Your task to perform on an android device: turn on improve location accuracy Image 0: 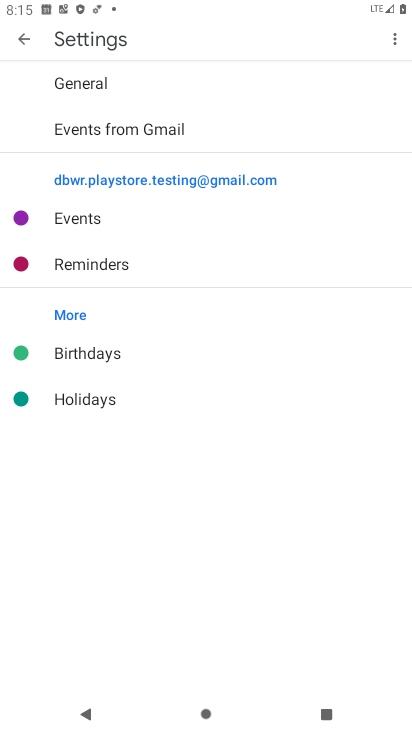
Step 0: press home button
Your task to perform on an android device: turn on improve location accuracy Image 1: 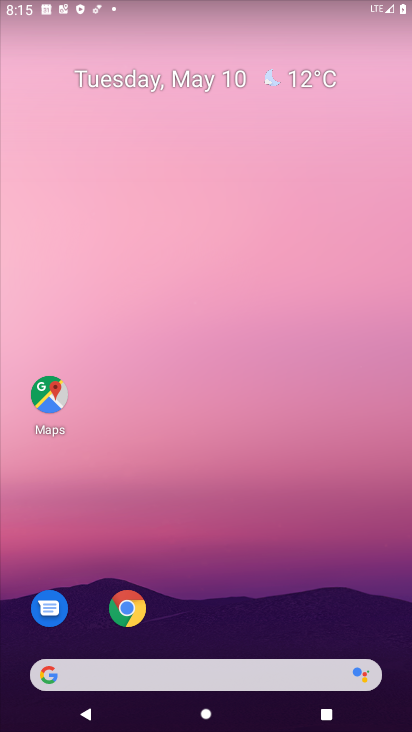
Step 1: drag from (127, 672) to (270, 196)
Your task to perform on an android device: turn on improve location accuracy Image 2: 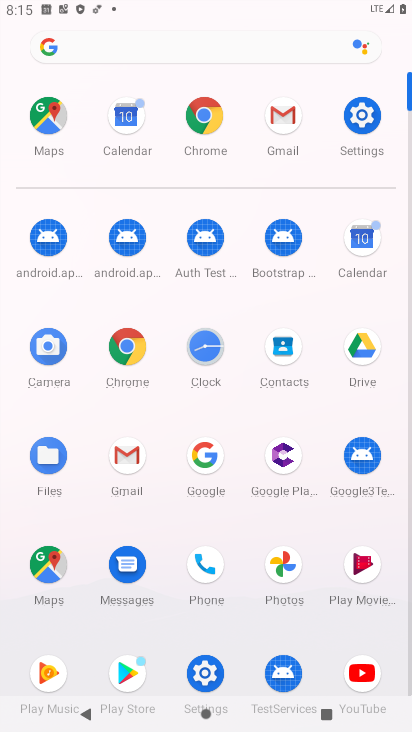
Step 2: click (357, 123)
Your task to perform on an android device: turn on improve location accuracy Image 3: 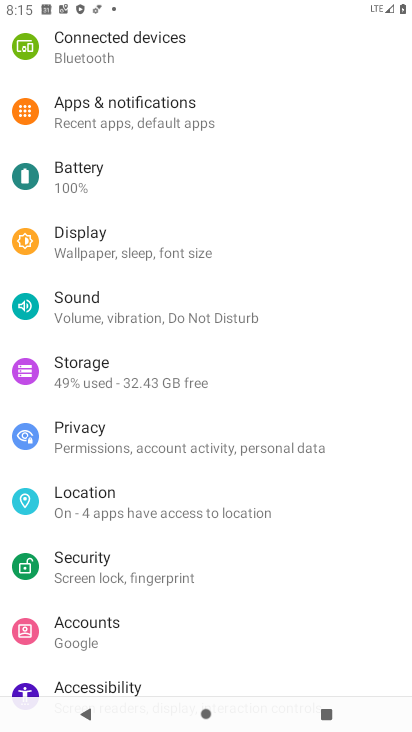
Step 3: click (112, 501)
Your task to perform on an android device: turn on improve location accuracy Image 4: 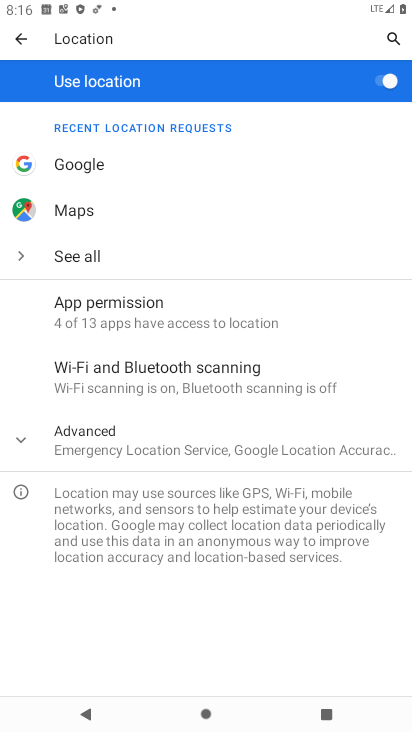
Step 4: click (90, 433)
Your task to perform on an android device: turn on improve location accuracy Image 5: 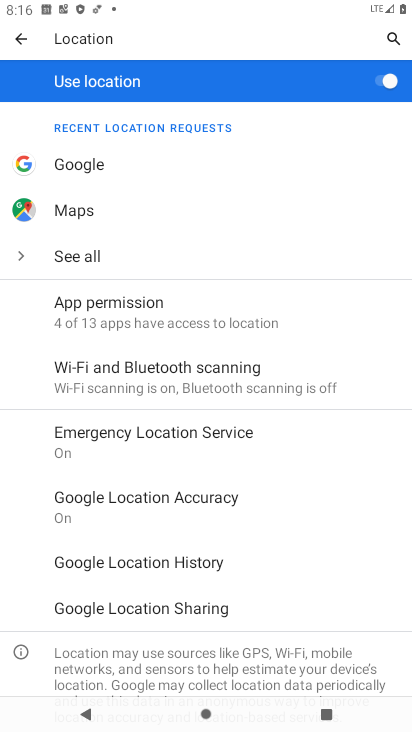
Step 5: click (153, 499)
Your task to perform on an android device: turn on improve location accuracy Image 6: 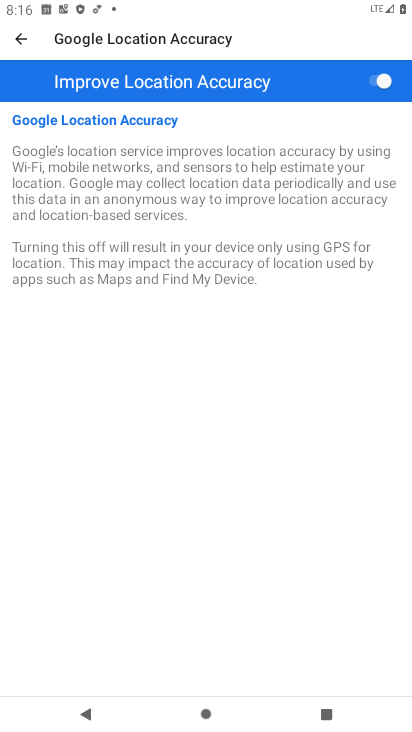
Step 6: task complete